Your task to perform on an android device: Do I have any events tomorrow? Image 0: 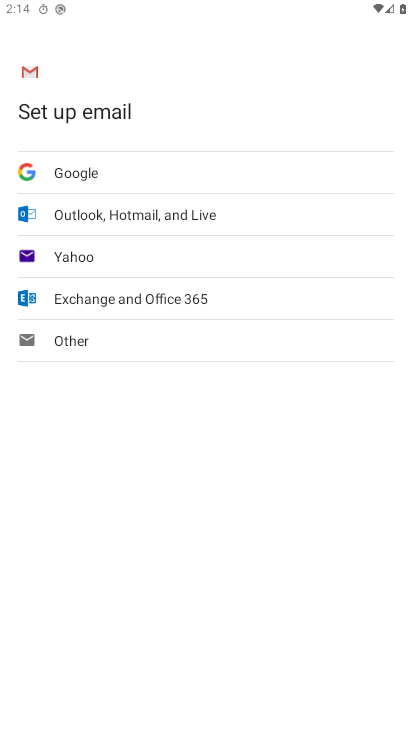
Step 0: press home button
Your task to perform on an android device: Do I have any events tomorrow? Image 1: 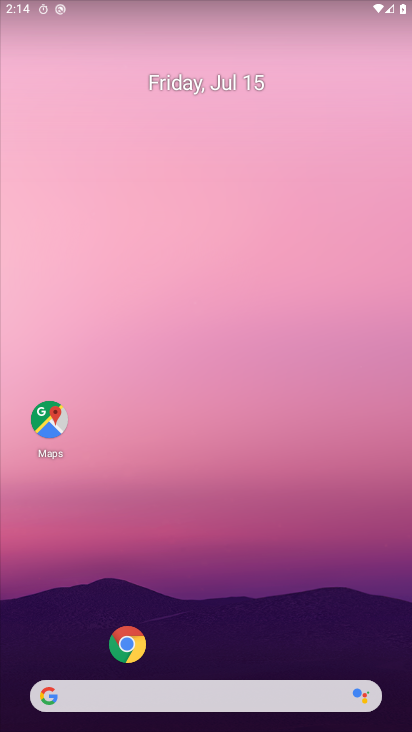
Step 1: drag from (219, 360) to (252, 279)
Your task to perform on an android device: Do I have any events tomorrow? Image 2: 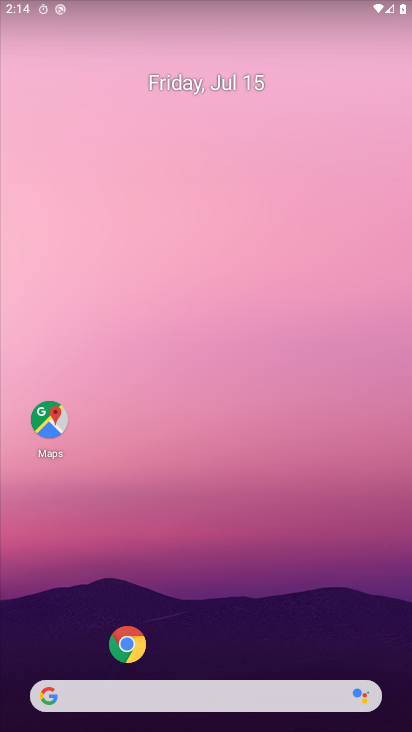
Step 2: click (245, 266)
Your task to perform on an android device: Do I have any events tomorrow? Image 3: 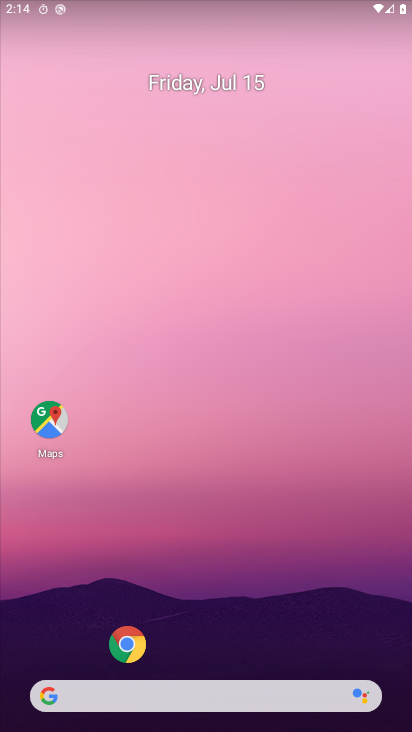
Step 3: drag from (48, 626) to (358, 135)
Your task to perform on an android device: Do I have any events tomorrow? Image 4: 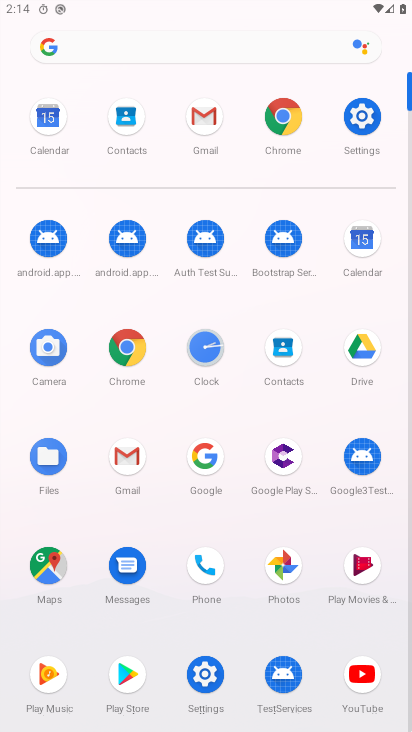
Step 4: click (352, 249)
Your task to perform on an android device: Do I have any events tomorrow? Image 5: 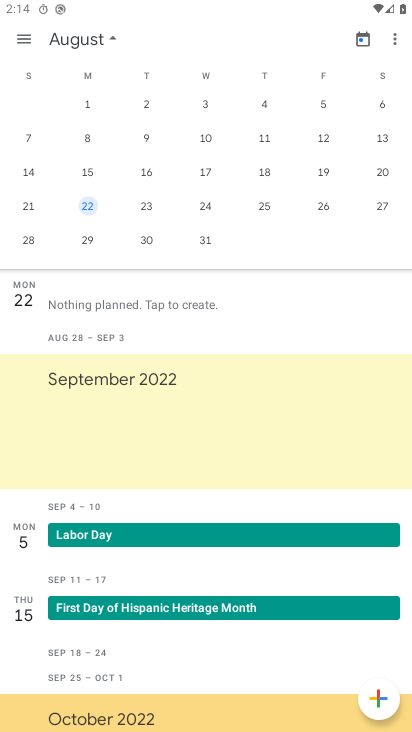
Step 5: drag from (202, 152) to (278, 156)
Your task to perform on an android device: Do I have any events tomorrow? Image 6: 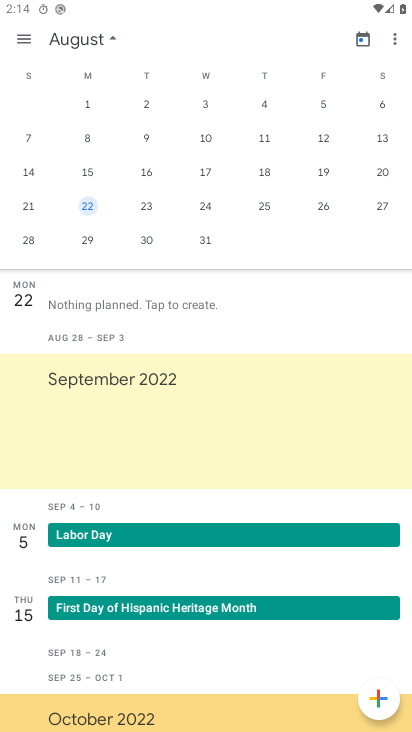
Step 6: drag from (12, 138) to (376, 186)
Your task to perform on an android device: Do I have any events tomorrow? Image 7: 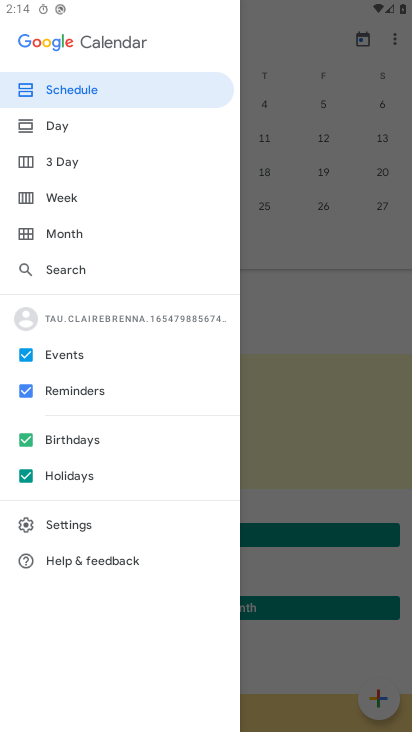
Step 7: click (314, 280)
Your task to perform on an android device: Do I have any events tomorrow? Image 8: 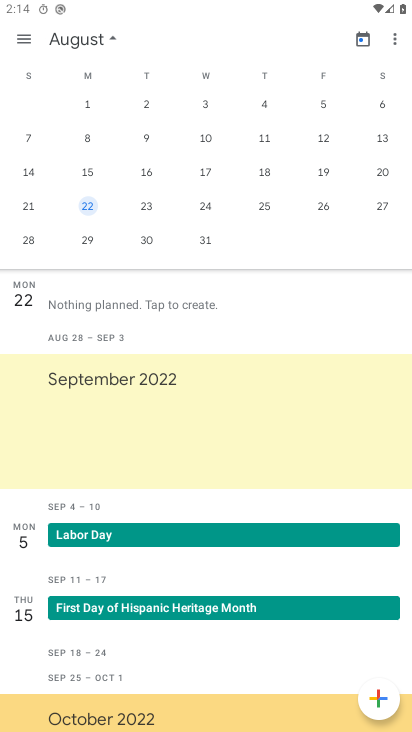
Step 8: drag from (6, 113) to (225, 114)
Your task to perform on an android device: Do I have any events tomorrow? Image 9: 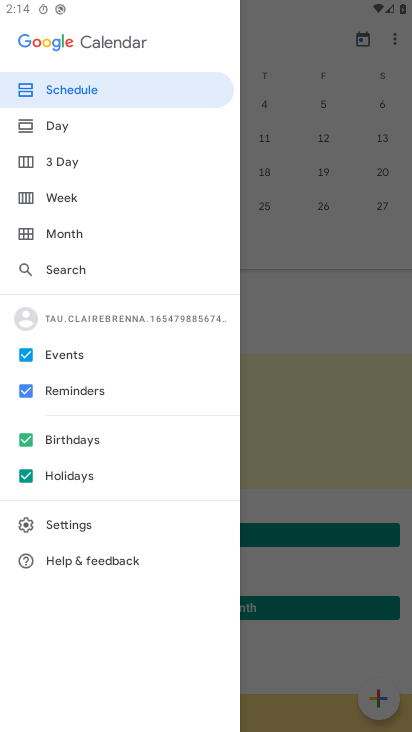
Step 9: click (265, 267)
Your task to perform on an android device: Do I have any events tomorrow? Image 10: 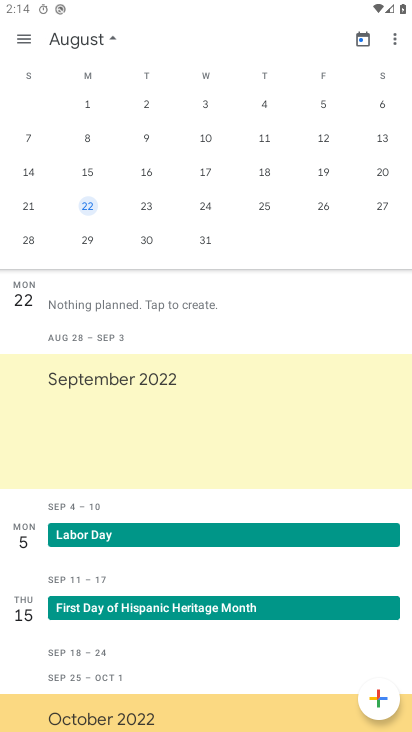
Step 10: task complete